Your task to perform on an android device: Open display settings Image 0: 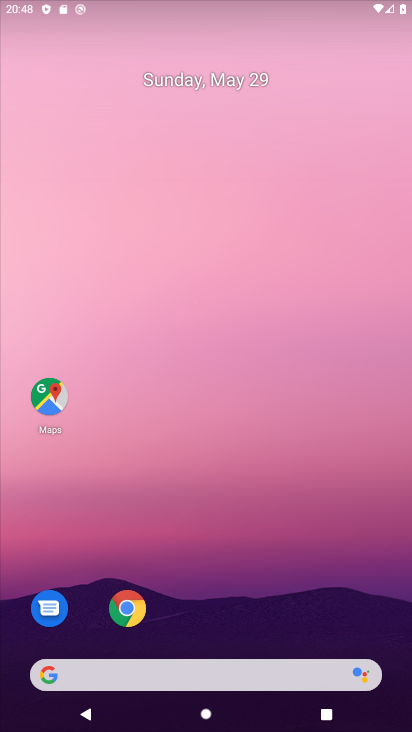
Step 0: press home button
Your task to perform on an android device: Open display settings Image 1: 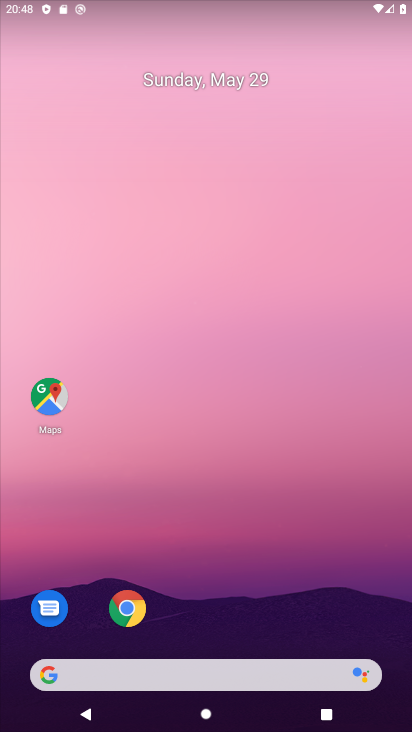
Step 1: drag from (387, 630) to (362, 269)
Your task to perform on an android device: Open display settings Image 2: 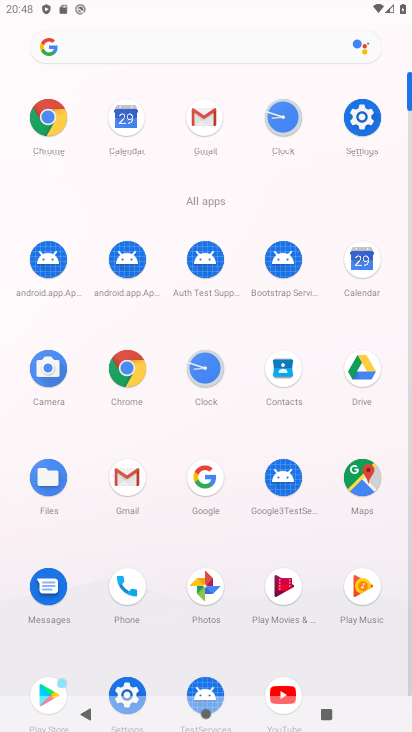
Step 2: click (358, 124)
Your task to perform on an android device: Open display settings Image 3: 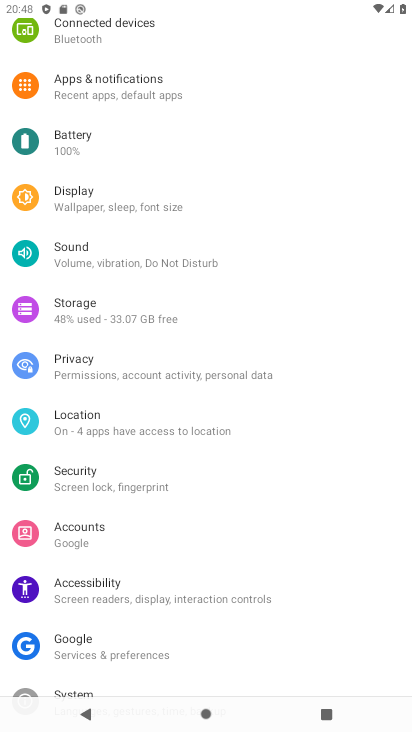
Step 3: drag from (331, 144) to (331, 216)
Your task to perform on an android device: Open display settings Image 4: 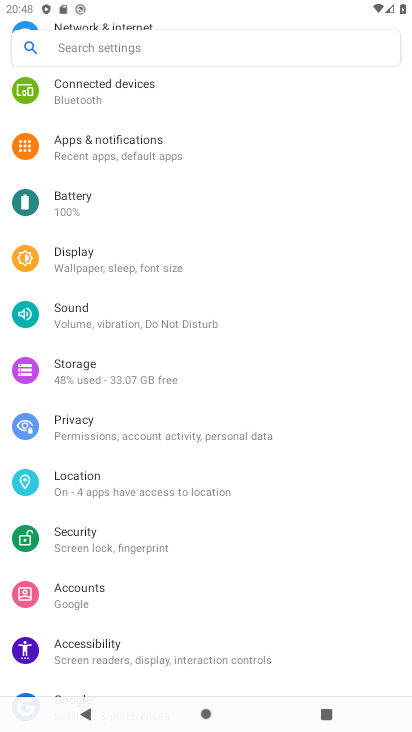
Step 4: drag from (328, 106) to (330, 200)
Your task to perform on an android device: Open display settings Image 5: 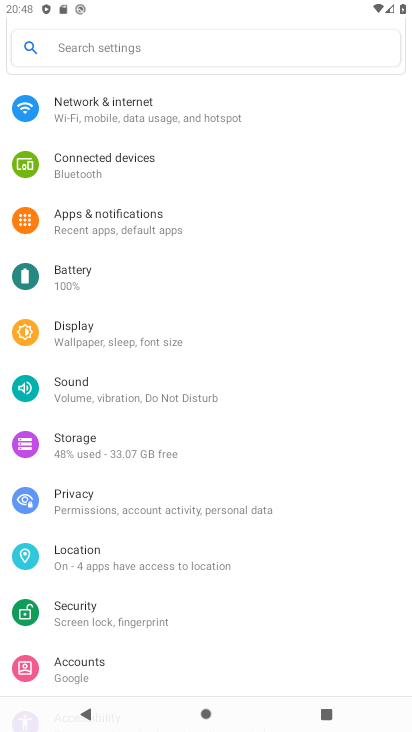
Step 5: drag from (326, 124) to (340, 271)
Your task to perform on an android device: Open display settings Image 6: 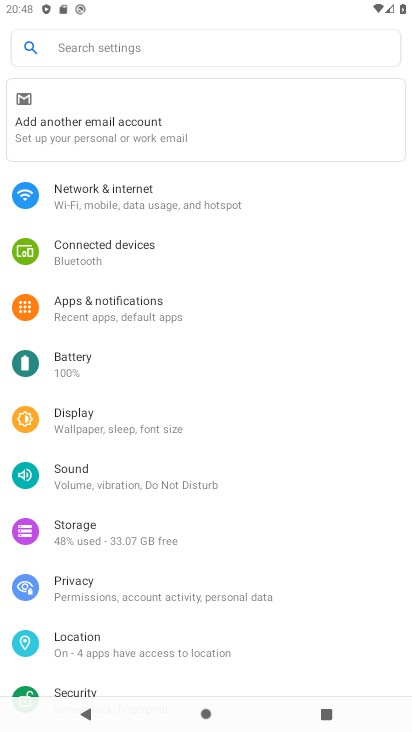
Step 6: drag from (330, 147) to (331, 276)
Your task to perform on an android device: Open display settings Image 7: 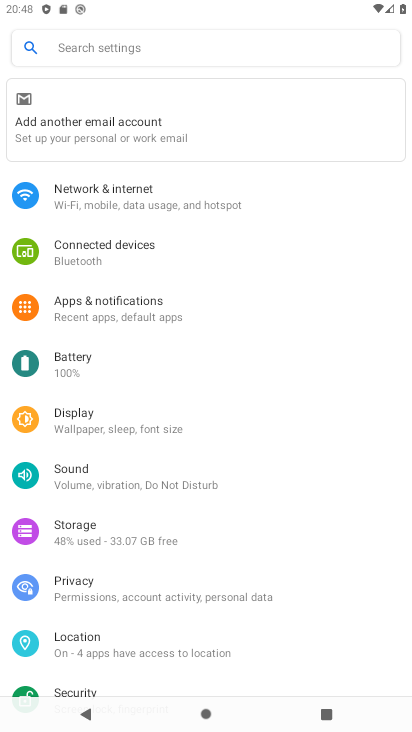
Step 7: click (219, 438)
Your task to perform on an android device: Open display settings Image 8: 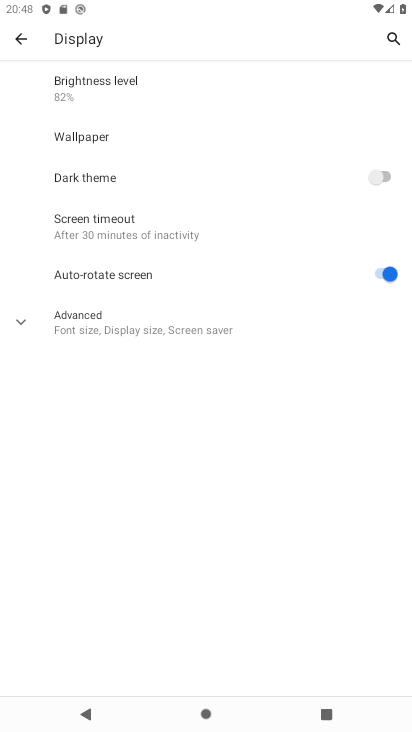
Step 8: click (221, 334)
Your task to perform on an android device: Open display settings Image 9: 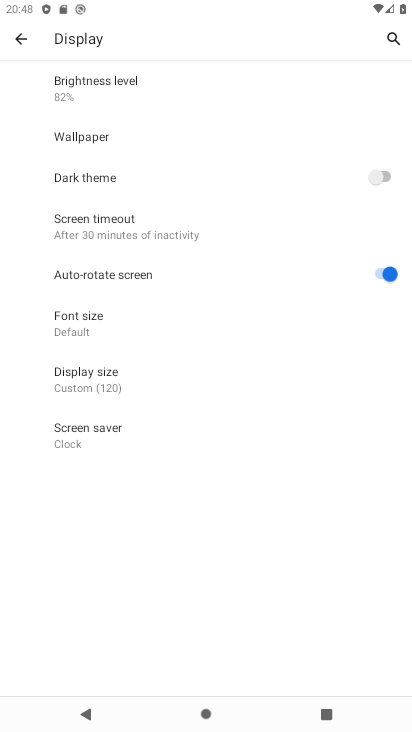
Step 9: task complete